Your task to perform on an android device: open app "Fetch Rewards" (install if not already installed) and enter user name: "Westwood@yahoo.com" and password: "qualifying" Image 0: 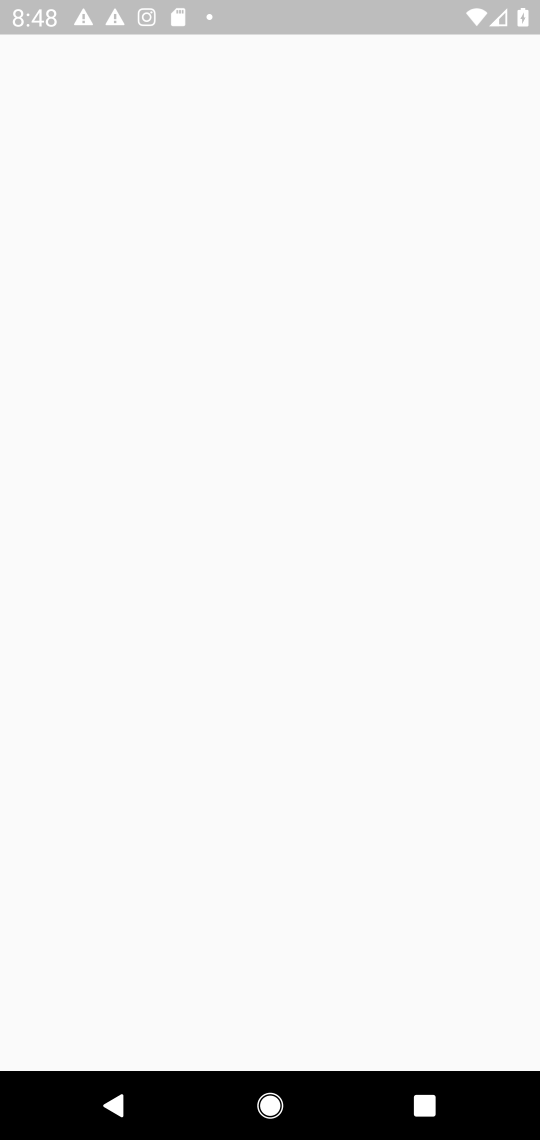
Step 0: press home button
Your task to perform on an android device: open app "Fetch Rewards" (install if not already installed) and enter user name: "Westwood@yahoo.com" and password: "qualifying" Image 1: 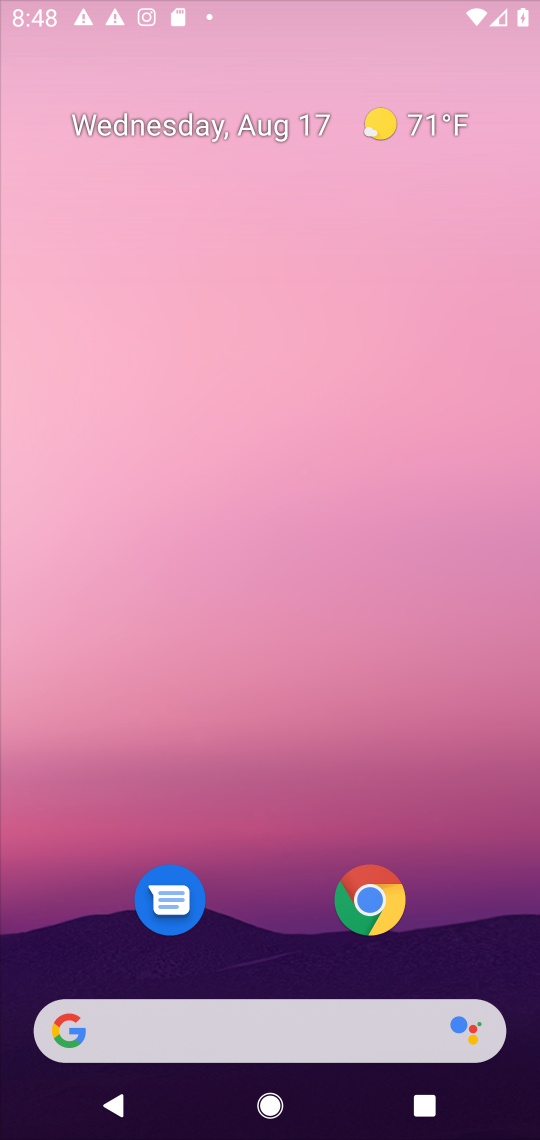
Step 1: drag from (287, 945) to (278, 126)
Your task to perform on an android device: open app "Fetch Rewards" (install if not already installed) and enter user name: "Westwood@yahoo.com" and password: "qualifying" Image 2: 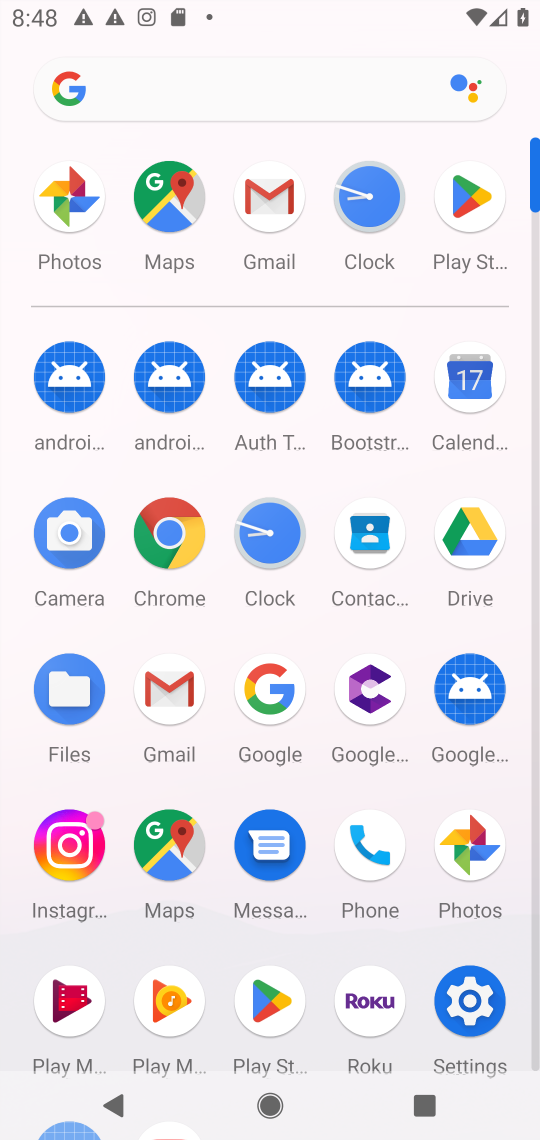
Step 2: click (456, 220)
Your task to perform on an android device: open app "Fetch Rewards" (install if not already installed) and enter user name: "Westwood@yahoo.com" and password: "qualifying" Image 3: 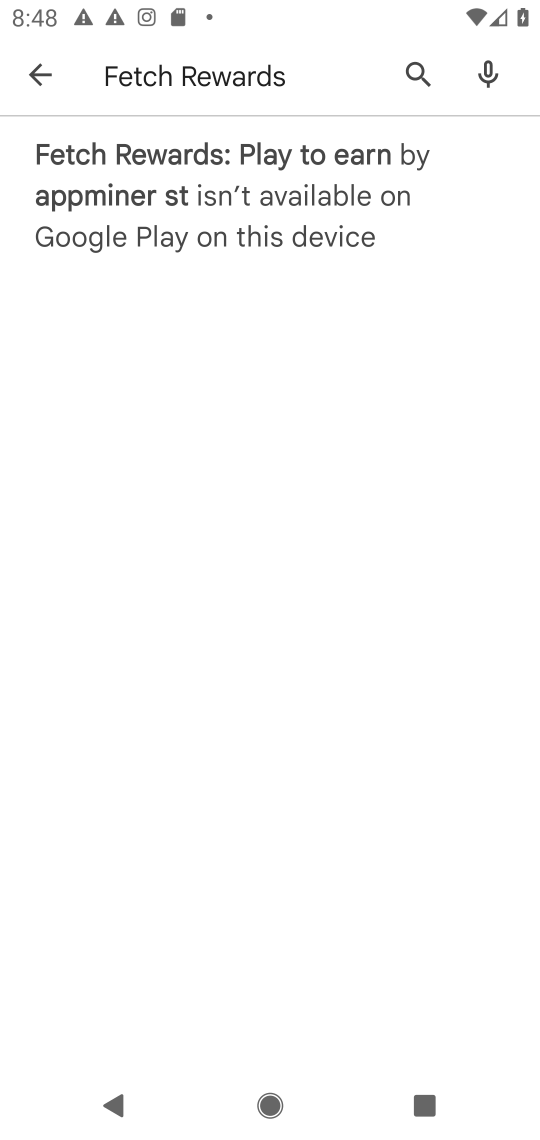
Step 3: click (63, 82)
Your task to perform on an android device: open app "Fetch Rewards" (install if not already installed) and enter user name: "Westwood@yahoo.com" and password: "qualifying" Image 4: 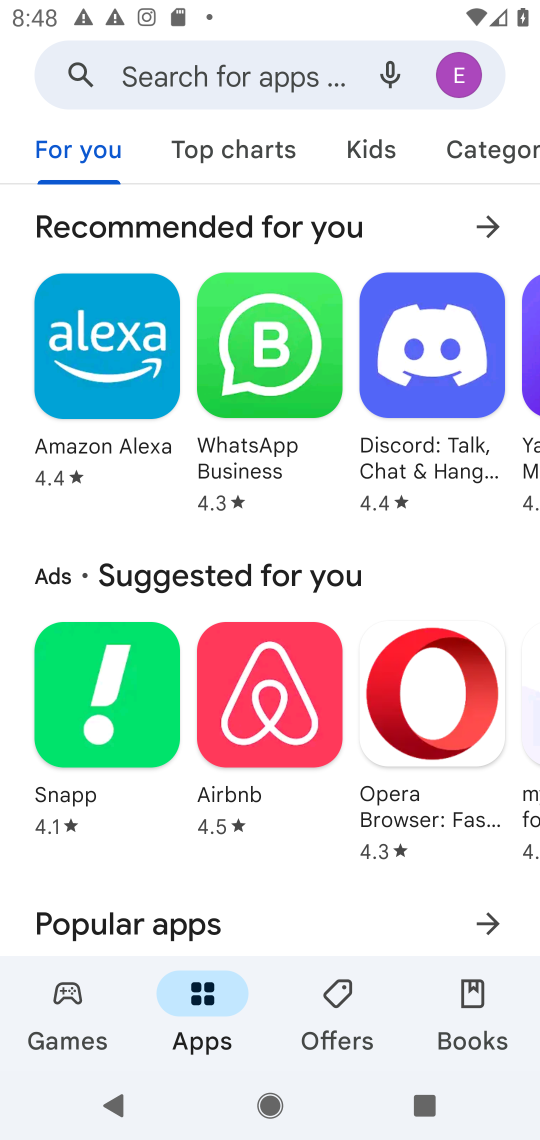
Step 4: click (163, 76)
Your task to perform on an android device: open app "Fetch Rewards" (install if not already installed) and enter user name: "Westwood@yahoo.com" and password: "qualifying" Image 5: 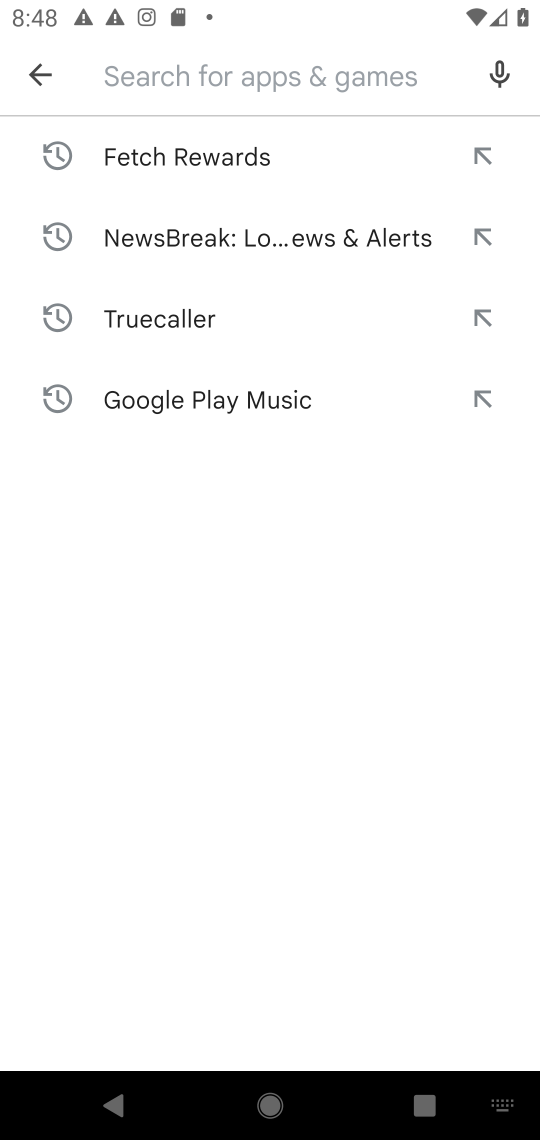
Step 5: click (166, 160)
Your task to perform on an android device: open app "Fetch Rewards" (install if not already installed) and enter user name: "Westwood@yahoo.com" and password: "qualifying" Image 6: 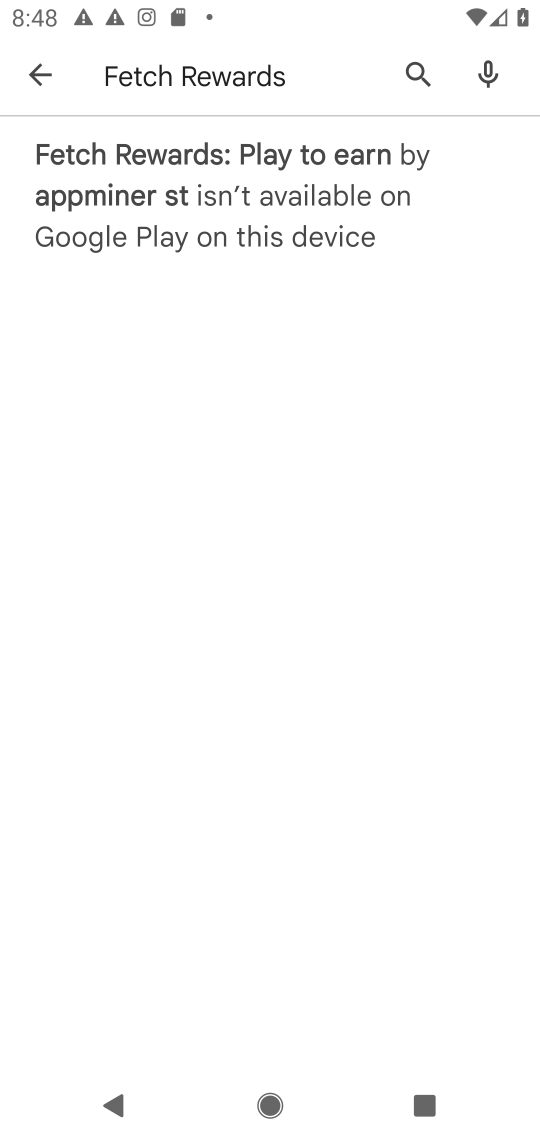
Step 6: task complete